Your task to perform on an android device: open chrome privacy settings Image 0: 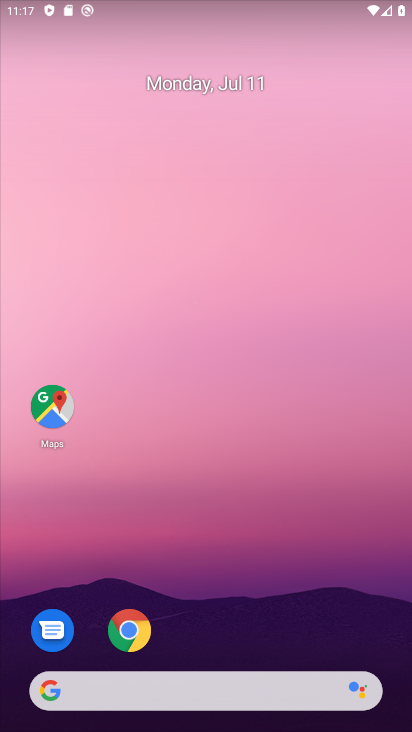
Step 0: click (132, 626)
Your task to perform on an android device: open chrome privacy settings Image 1: 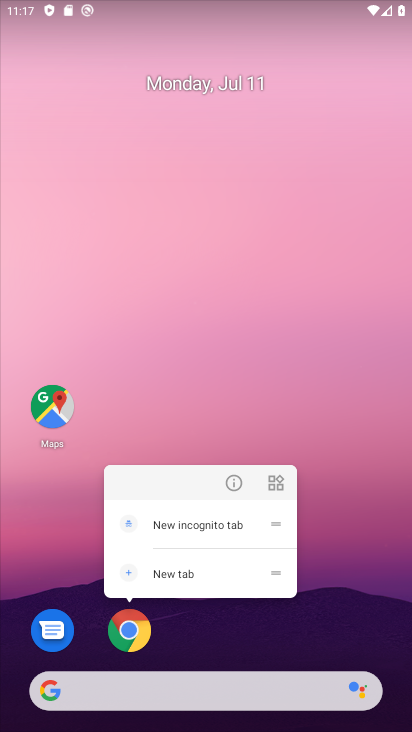
Step 1: click (132, 627)
Your task to perform on an android device: open chrome privacy settings Image 2: 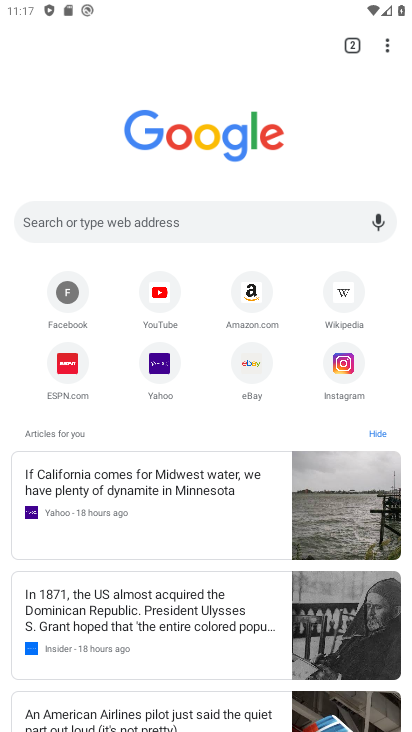
Step 2: click (383, 42)
Your task to perform on an android device: open chrome privacy settings Image 3: 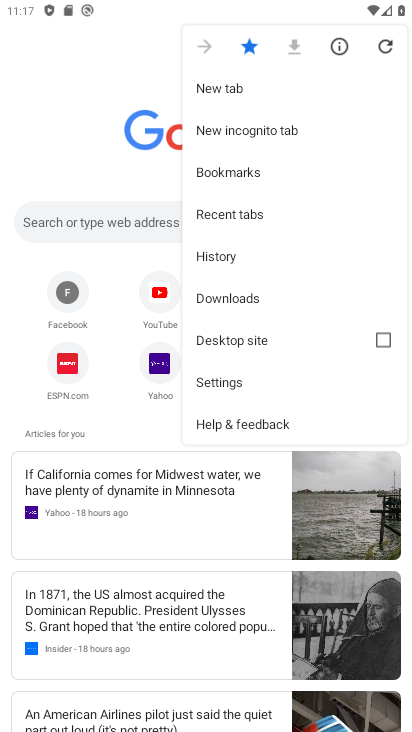
Step 3: click (246, 387)
Your task to perform on an android device: open chrome privacy settings Image 4: 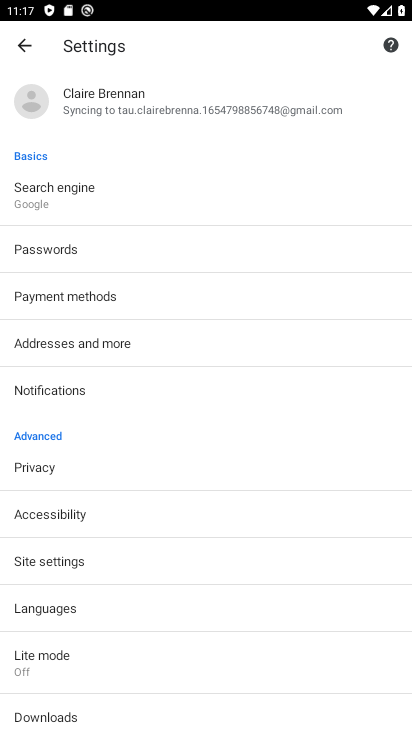
Step 4: click (50, 460)
Your task to perform on an android device: open chrome privacy settings Image 5: 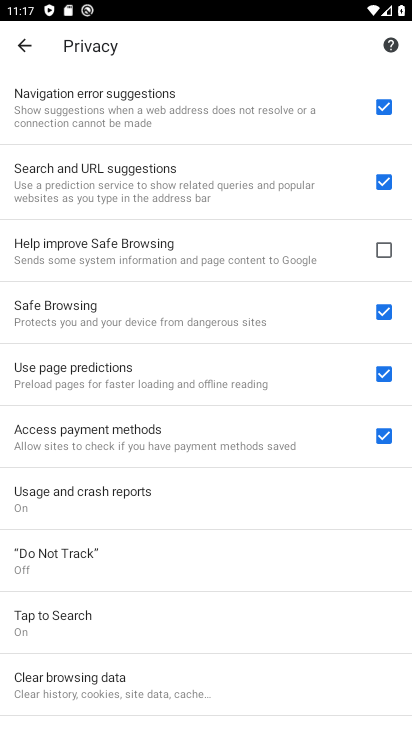
Step 5: task complete